Your task to perform on an android device: turn off translation in the chrome app Image 0: 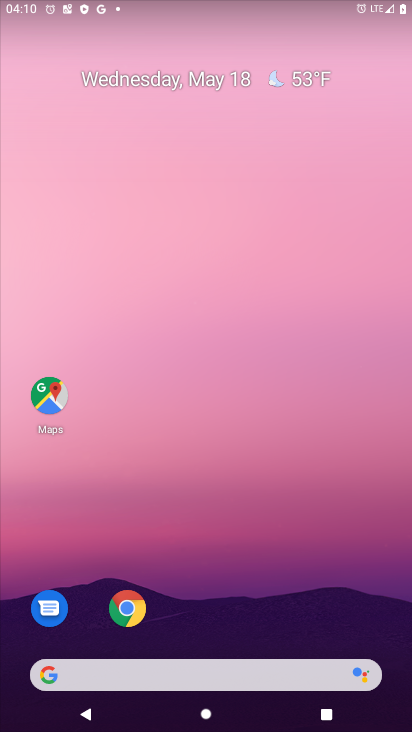
Step 0: click (135, 609)
Your task to perform on an android device: turn off translation in the chrome app Image 1: 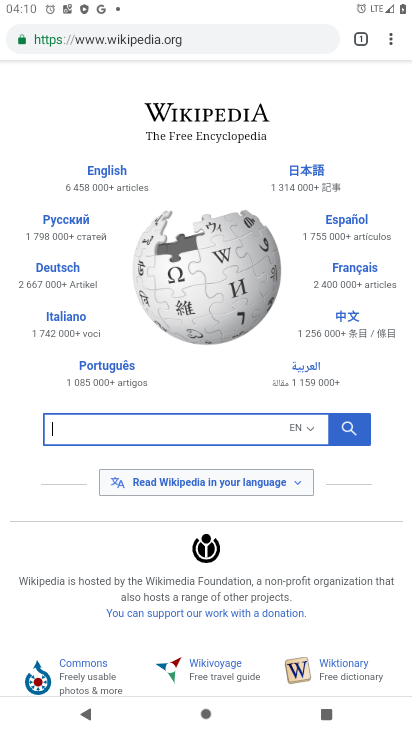
Step 1: click (396, 41)
Your task to perform on an android device: turn off translation in the chrome app Image 2: 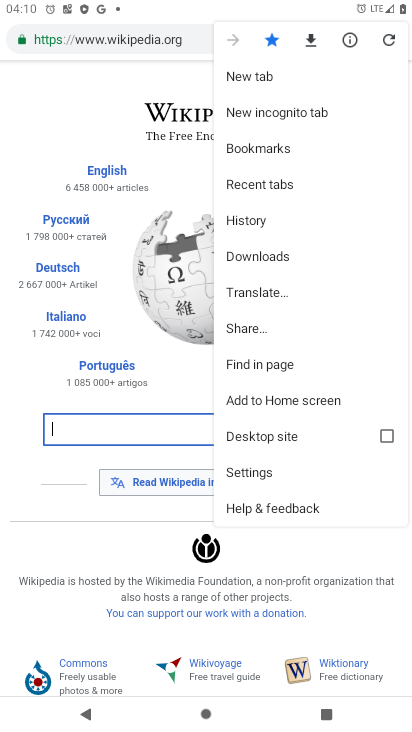
Step 2: click (273, 475)
Your task to perform on an android device: turn off translation in the chrome app Image 3: 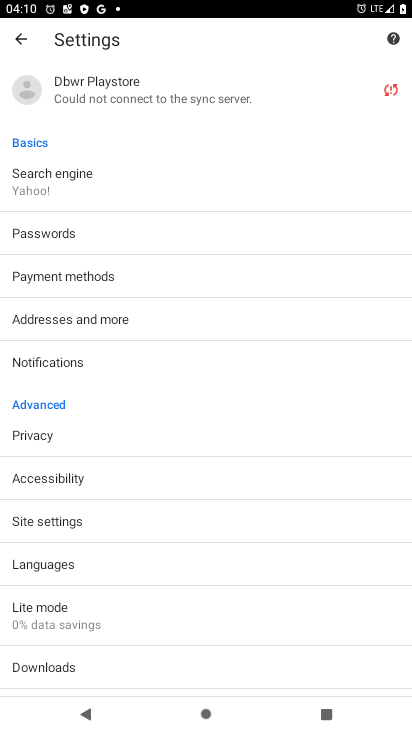
Step 3: click (66, 568)
Your task to perform on an android device: turn off translation in the chrome app Image 4: 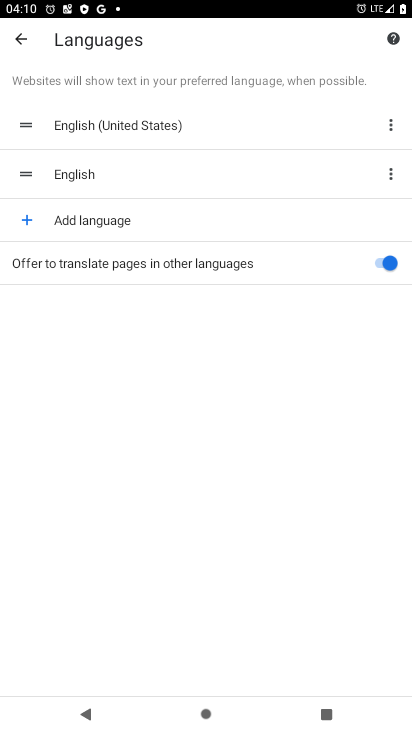
Step 4: click (394, 270)
Your task to perform on an android device: turn off translation in the chrome app Image 5: 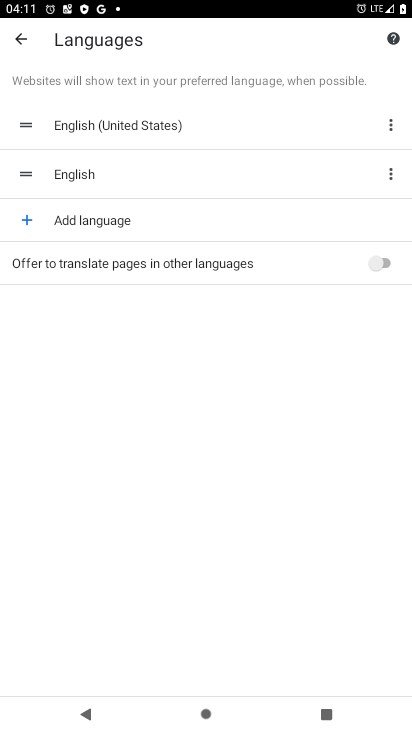
Step 5: task complete